Your task to perform on an android device: Check the weather Image 0: 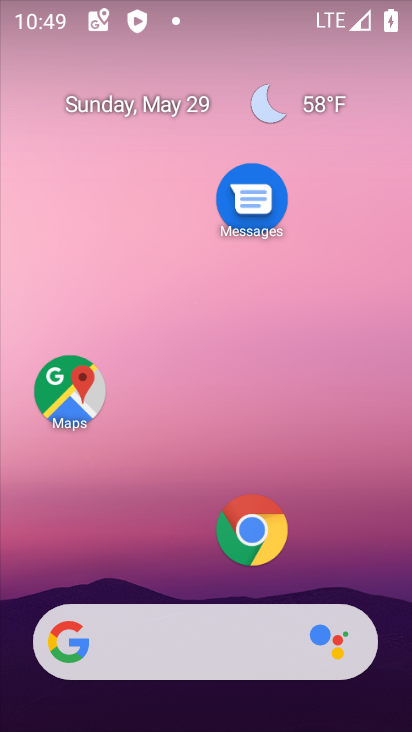
Step 0: click (310, 121)
Your task to perform on an android device: Check the weather Image 1: 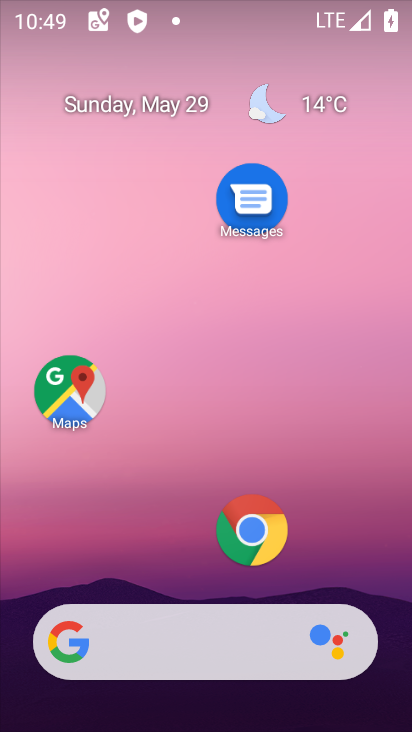
Step 1: click (313, 103)
Your task to perform on an android device: Check the weather Image 2: 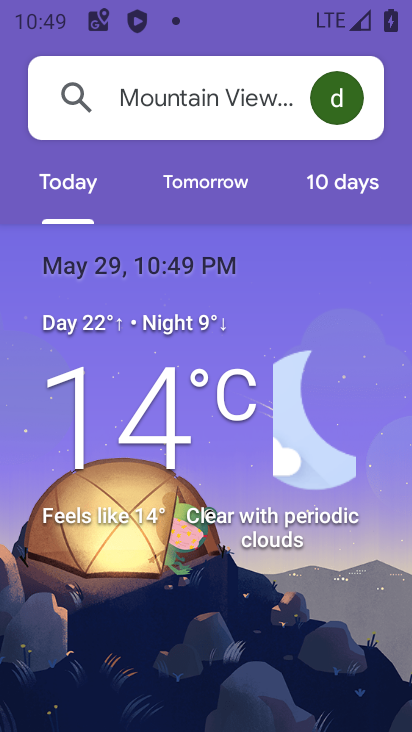
Step 2: task complete